Your task to perform on an android device: Open CNN.com Image 0: 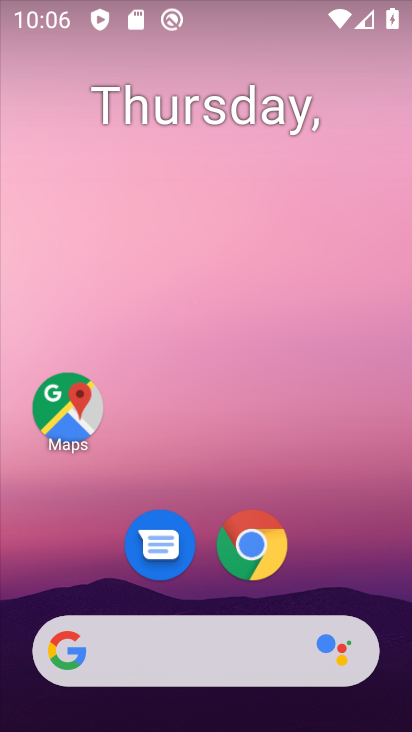
Step 0: click (255, 546)
Your task to perform on an android device: Open CNN.com Image 1: 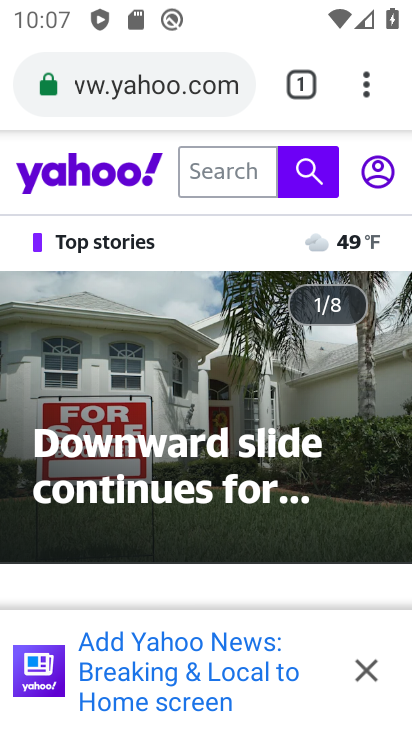
Step 1: click (174, 84)
Your task to perform on an android device: Open CNN.com Image 2: 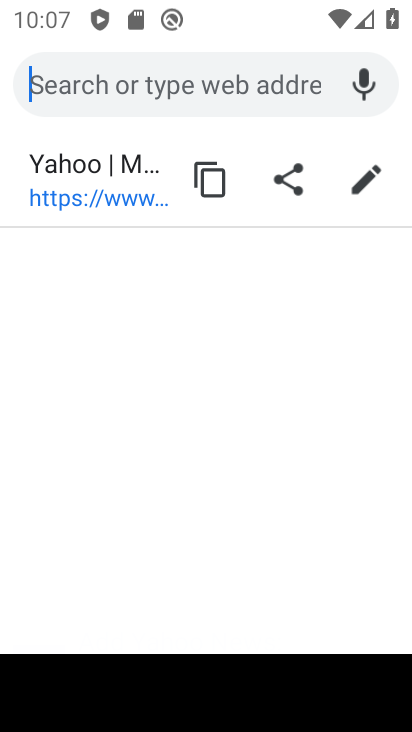
Step 2: type "CNN.com"
Your task to perform on an android device: Open CNN.com Image 3: 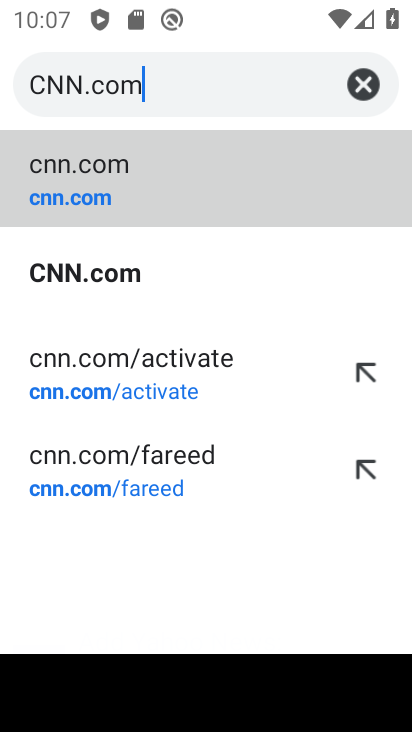
Step 3: type ""
Your task to perform on an android device: Open CNN.com Image 4: 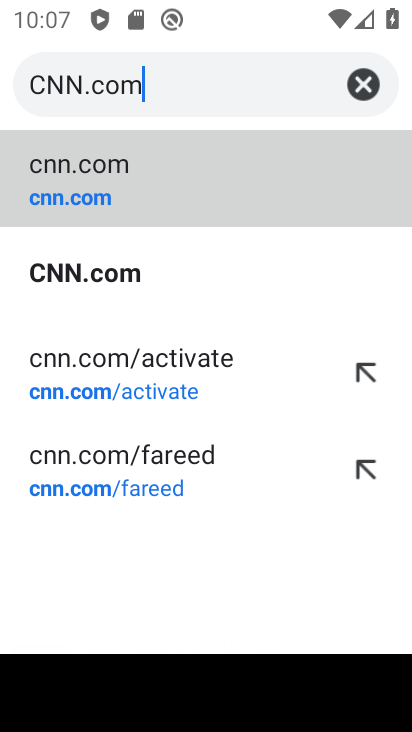
Step 4: click (78, 280)
Your task to perform on an android device: Open CNN.com Image 5: 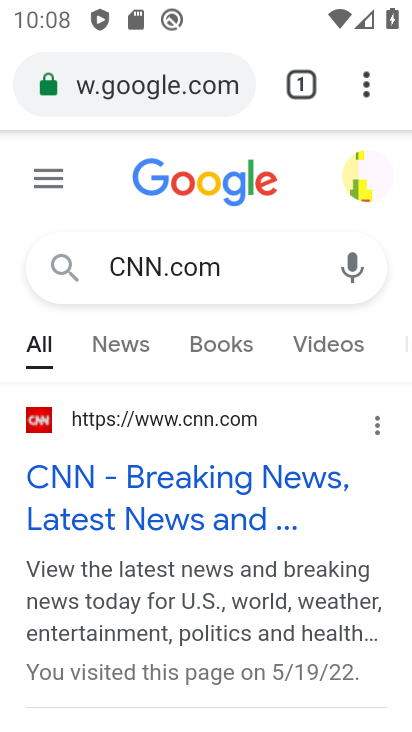
Step 5: click (146, 486)
Your task to perform on an android device: Open CNN.com Image 6: 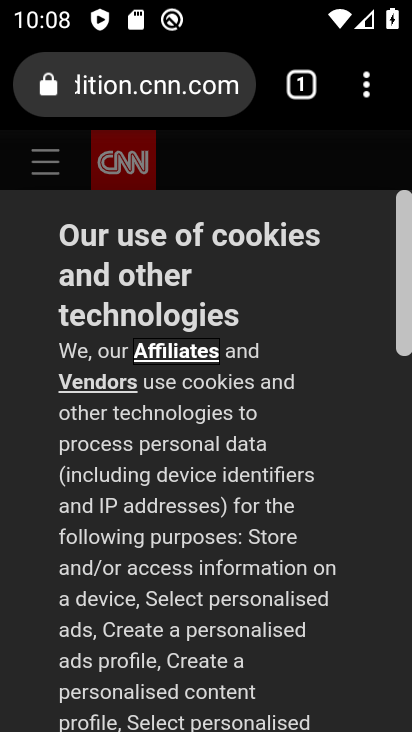
Step 6: task complete